Your task to perform on an android device: Open Google Image 0: 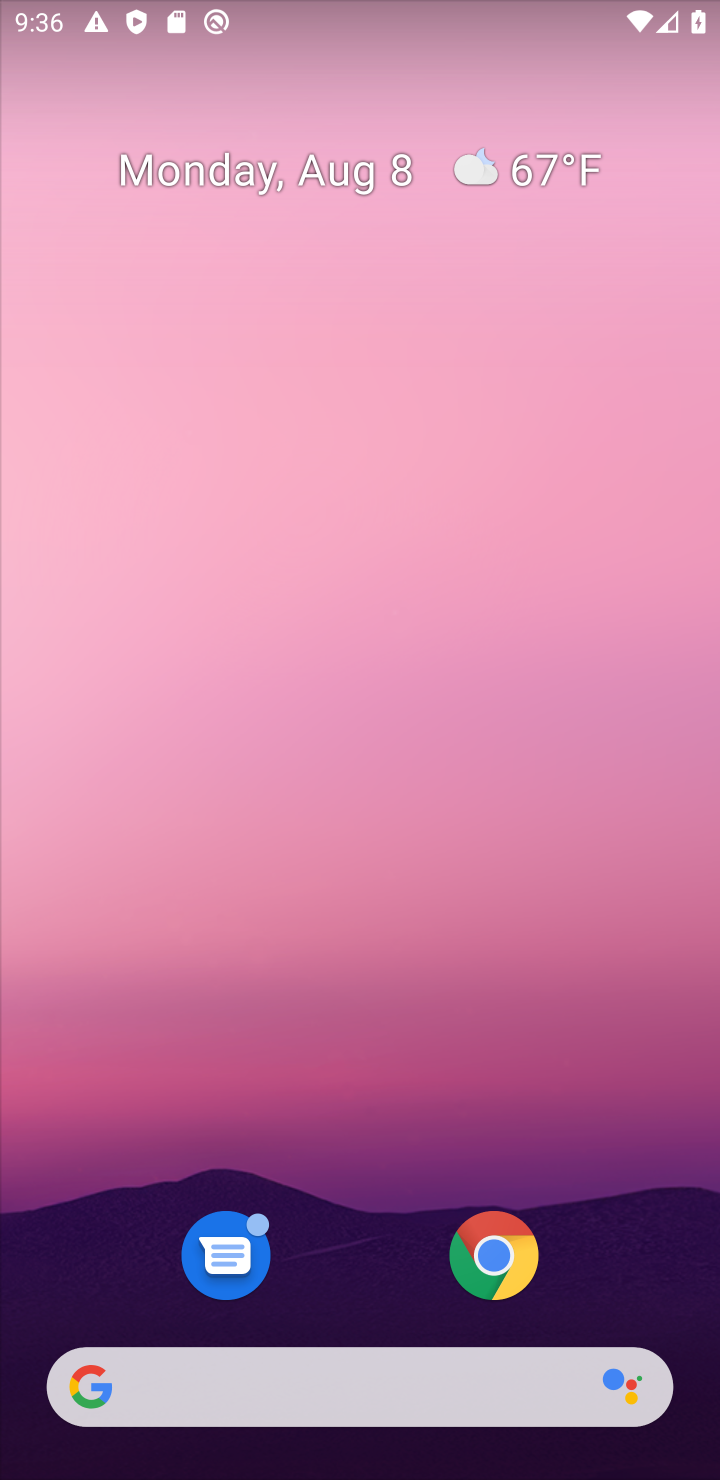
Step 0: drag from (551, 1474) to (496, 684)
Your task to perform on an android device: Open Google Image 1: 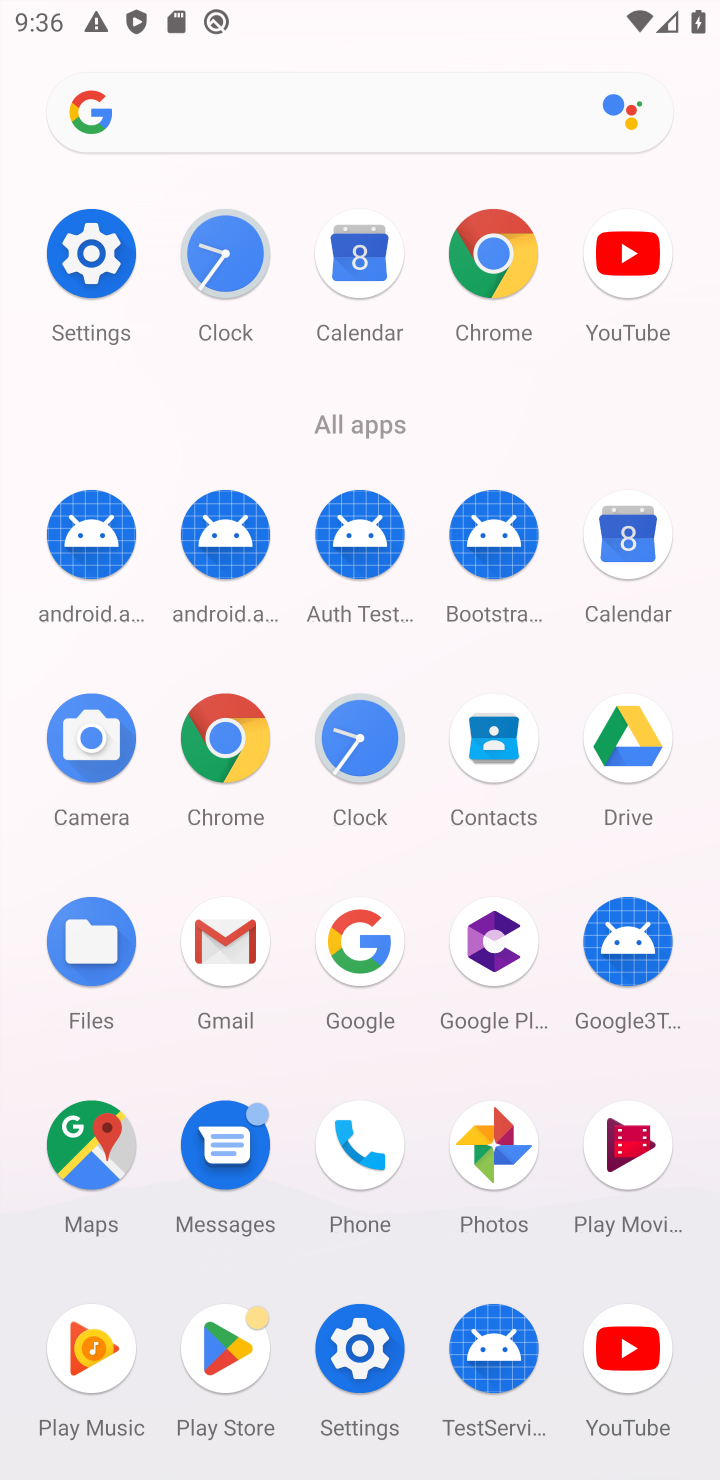
Step 1: click (327, 928)
Your task to perform on an android device: Open Google Image 2: 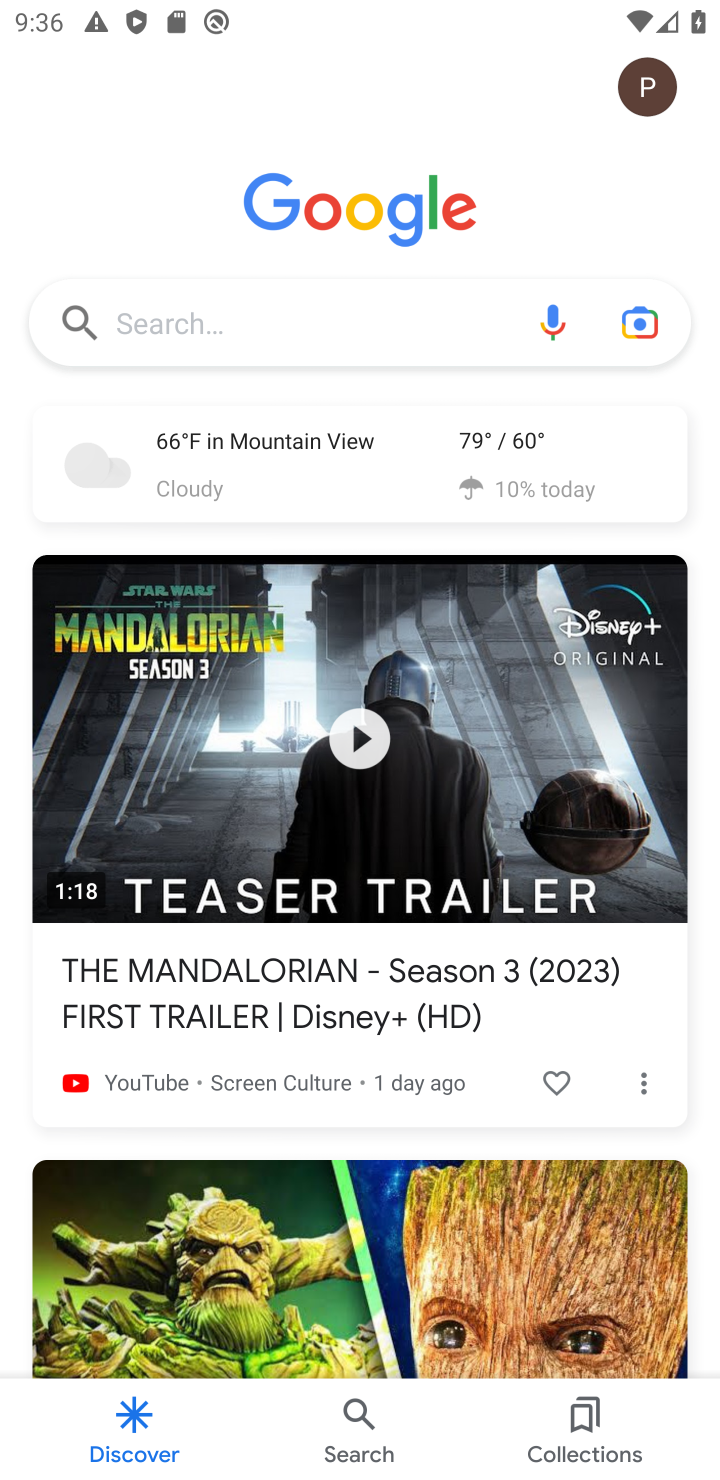
Step 2: task complete